Your task to perform on an android device: remove spam from my inbox in the gmail app Image 0: 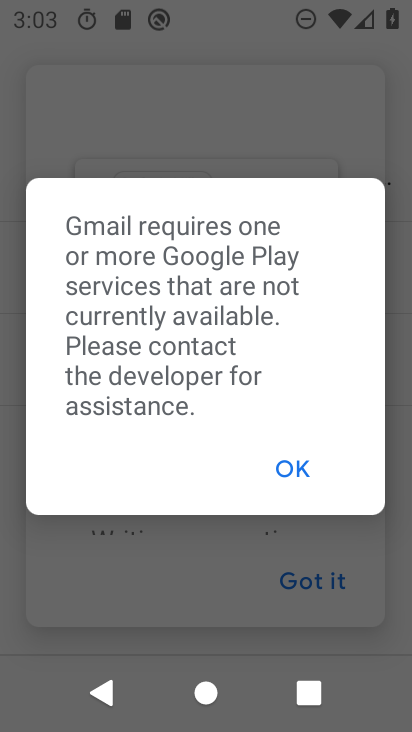
Step 0: press home button
Your task to perform on an android device: remove spam from my inbox in the gmail app Image 1: 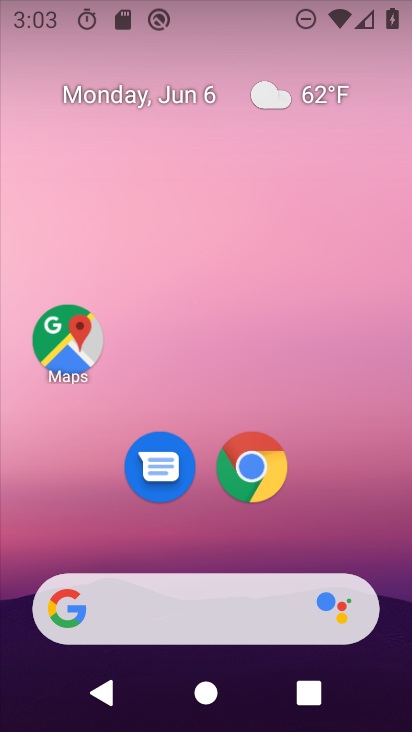
Step 1: drag from (224, 537) to (171, 250)
Your task to perform on an android device: remove spam from my inbox in the gmail app Image 2: 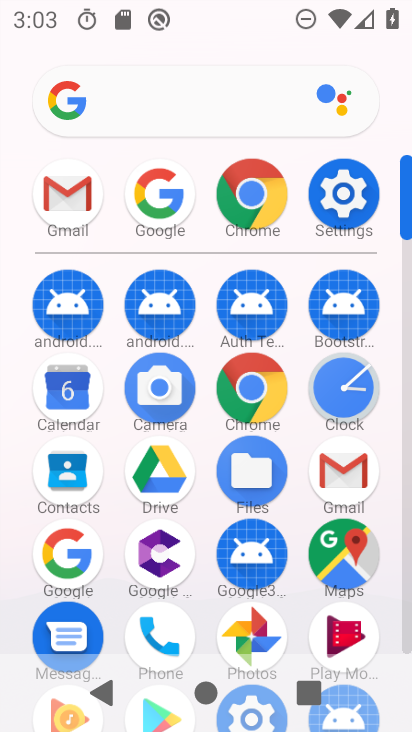
Step 2: click (345, 482)
Your task to perform on an android device: remove spam from my inbox in the gmail app Image 3: 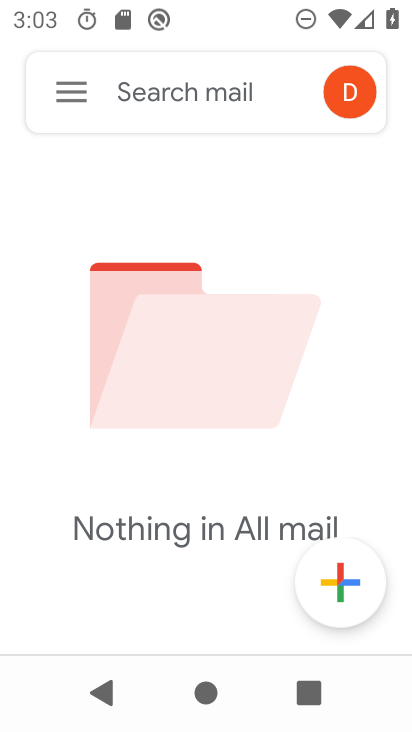
Step 3: click (74, 88)
Your task to perform on an android device: remove spam from my inbox in the gmail app Image 4: 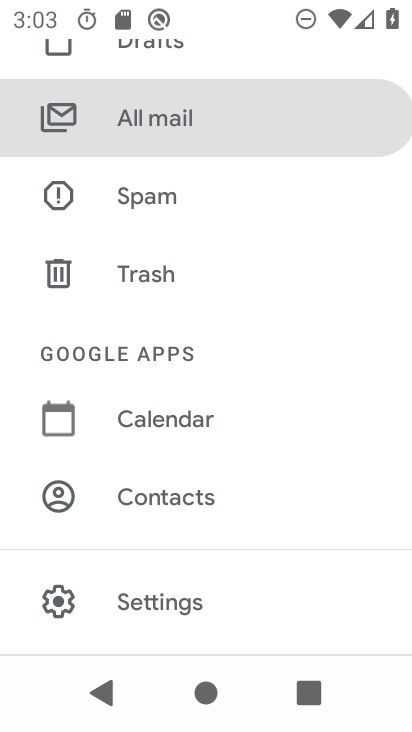
Step 4: click (137, 208)
Your task to perform on an android device: remove spam from my inbox in the gmail app Image 5: 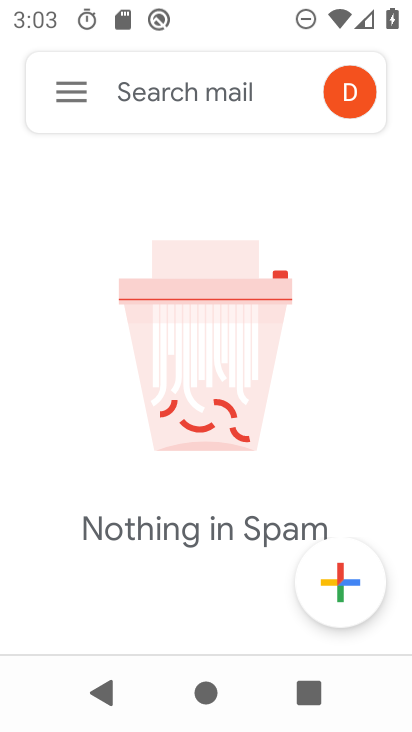
Step 5: task complete